Your task to perform on an android device: open app "Life360: Find Family & Friends" (install if not already installed) and enter user name: "gusts@gmail.com" and password: "assurers" Image 0: 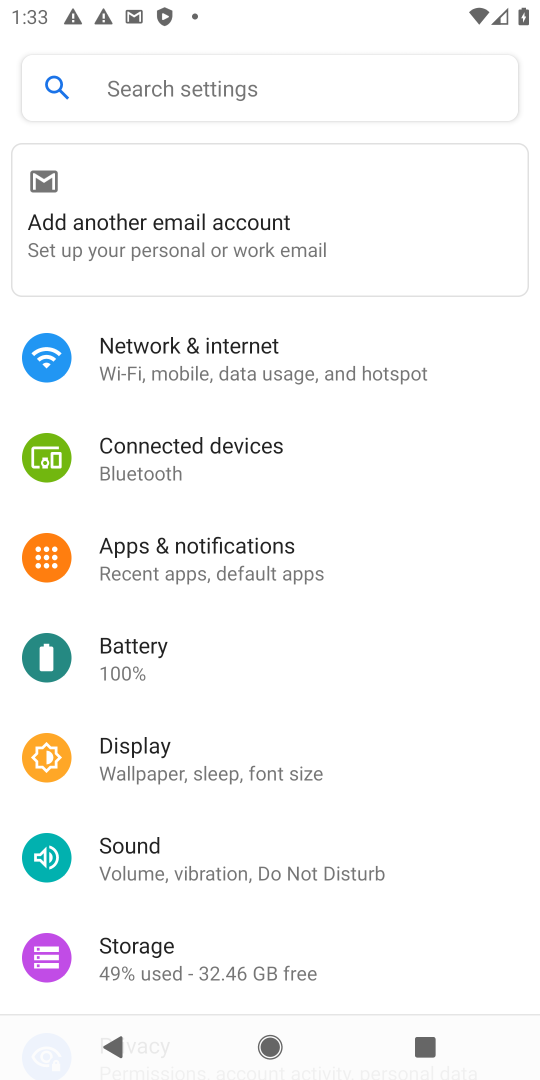
Step 0: press home button
Your task to perform on an android device: open app "Life360: Find Family & Friends" (install if not already installed) and enter user name: "gusts@gmail.com" and password: "assurers" Image 1: 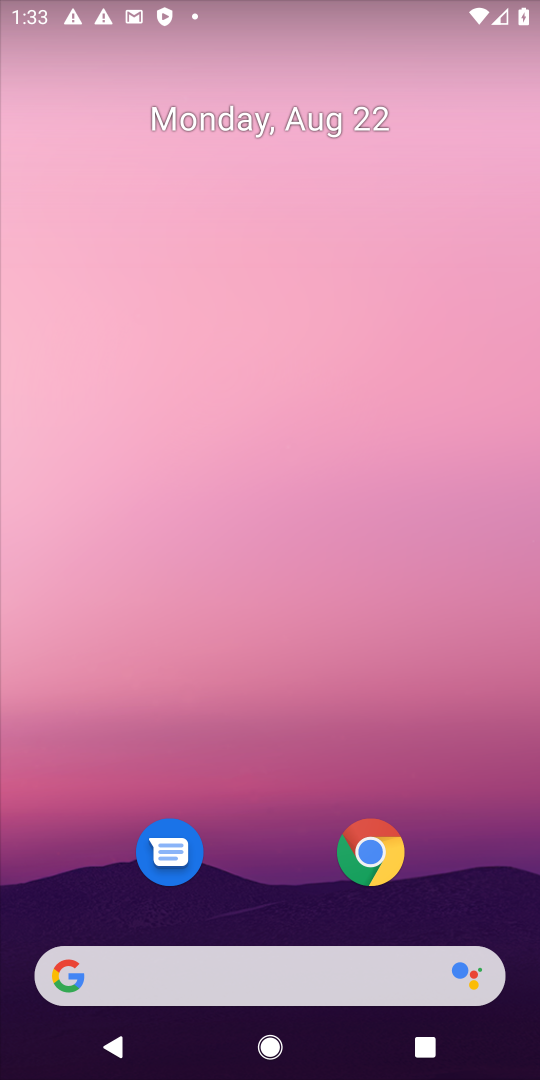
Step 1: drag from (276, 968) to (205, 41)
Your task to perform on an android device: open app "Life360: Find Family & Friends" (install if not already installed) and enter user name: "gusts@gmail.com" and password: "assurers" Image 2: 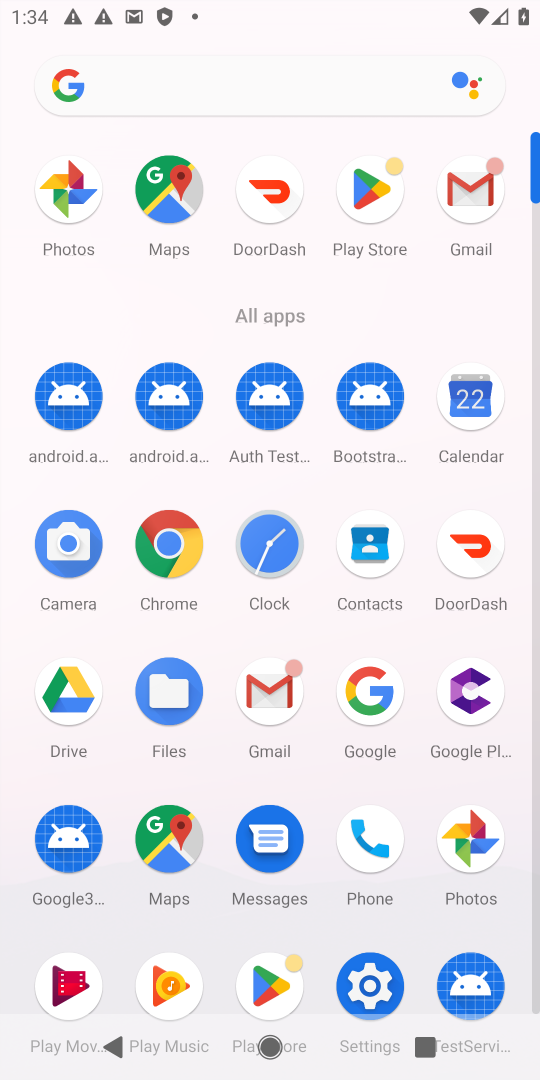
Step 2: click (361, 203)
Your task to perform on an android device: open app "Life360: Find Family & Friends" (install if not already installed) and enter user name: "gusts@gmail.com" and password: "assurers" Image 3: 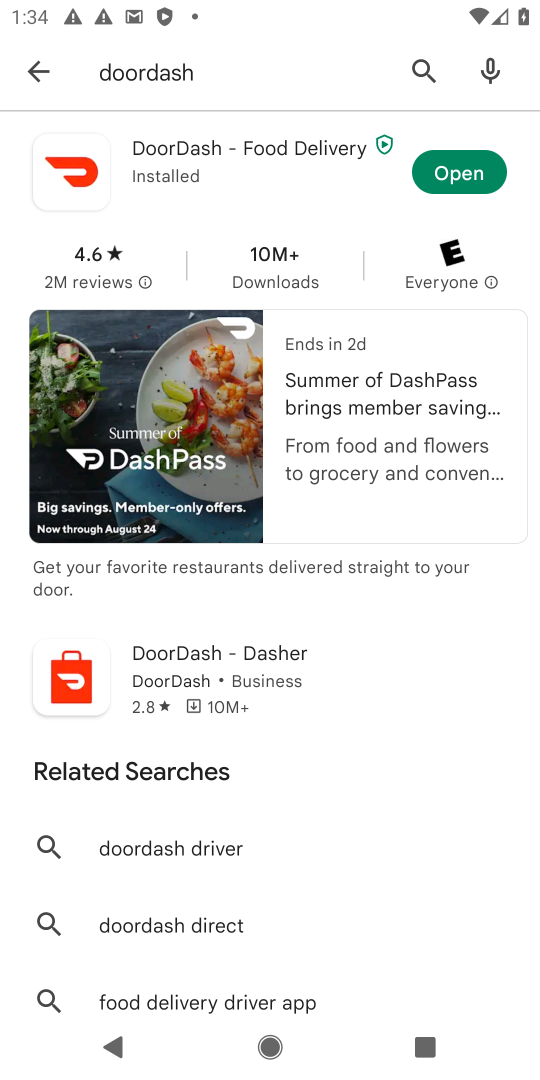
Step 3: click (416, 74)
Your task to perform on an android device: open app "Life360: Find Family & Friends" (install if not already installed) and enter user name: "gusts@gmail.com" and password: "assurers" Image 4: 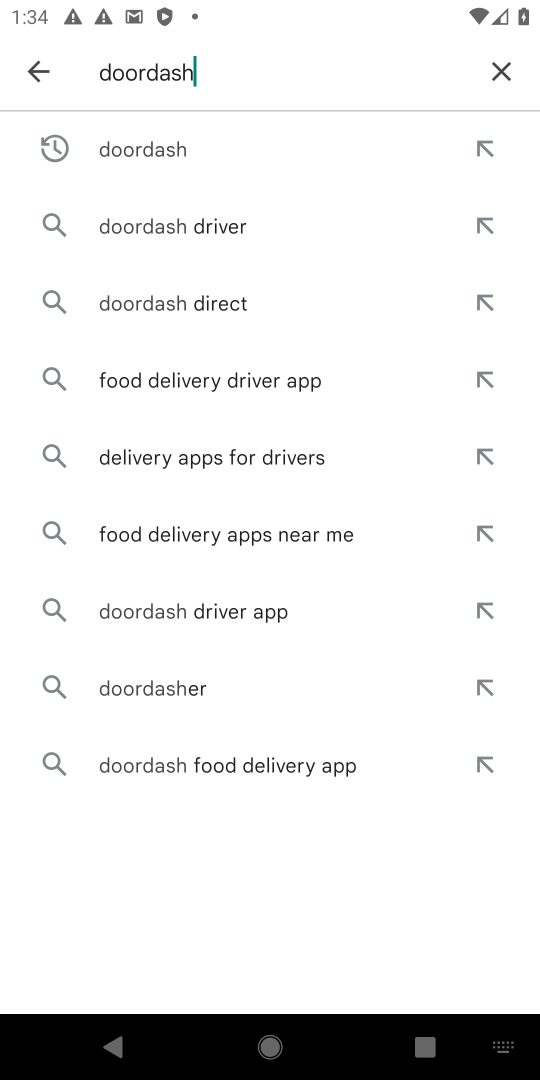
Step 4: click (491, 71)
Your task to perform on an android device: open app "Life360: Find Family & Friends" (install if not already installed) and enter user name: "gusts@gmail.com" and password: "assurers" Image 5: 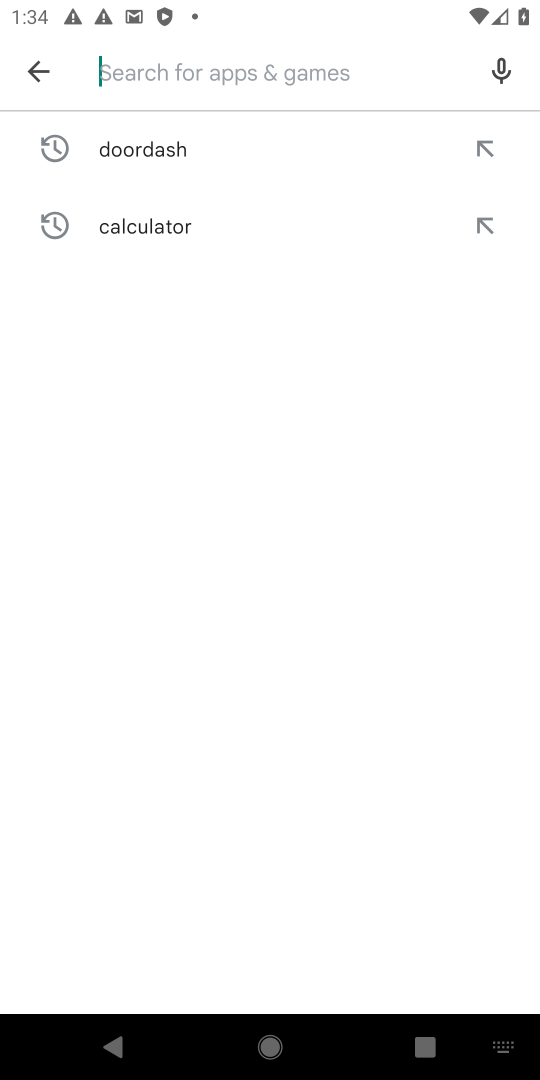
Step 5: type "life360"
Your task to perform on an android device: open app "Life360: Find Family & Friends" (install if not already installed) and enter user name: "gusts@gmail.com" and password: "assurers" Image 6: 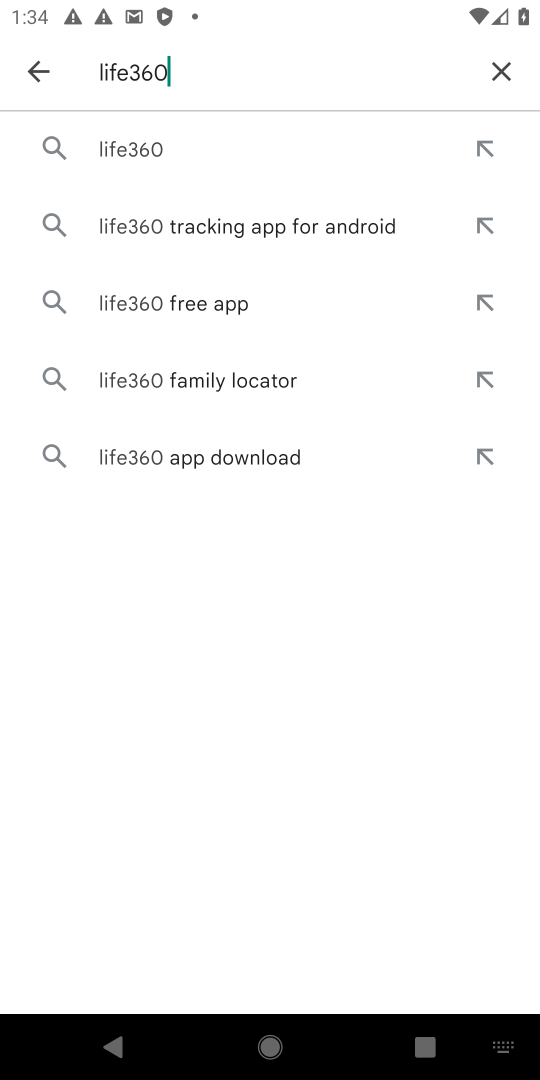
Step 6: click (484, 315)
Your task to perform on an android device: open app "Life360: Find Family & Friends" (install if not already installed) and enter user name: "gusts@gmail.com" and password: "assurers" Image 7: 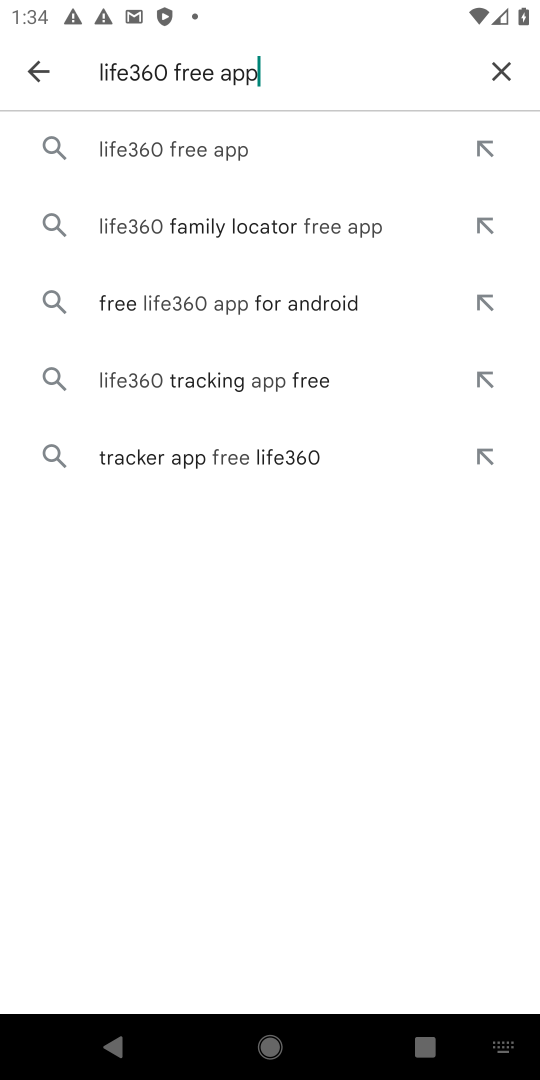
Step 7: click (144, 135)
Your task to perform on an android device: open app "Life360: Find Family & Friends" (install if not already installed) and enter user name: "gusts@gmail.com" and password: "assurers" Image 8: 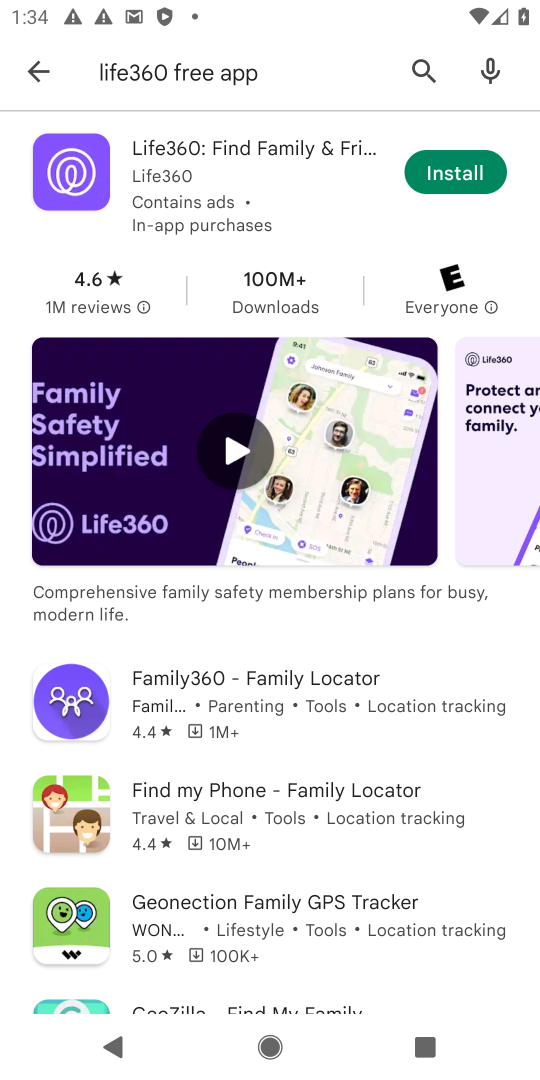
Step 8: click (476, 162)
Your task to perform on an android device: open app "Life360: Find Family & Friends" (install if not already installed) and enter user name: "gusts@gmail.com" and password: "assurers" Image 9: 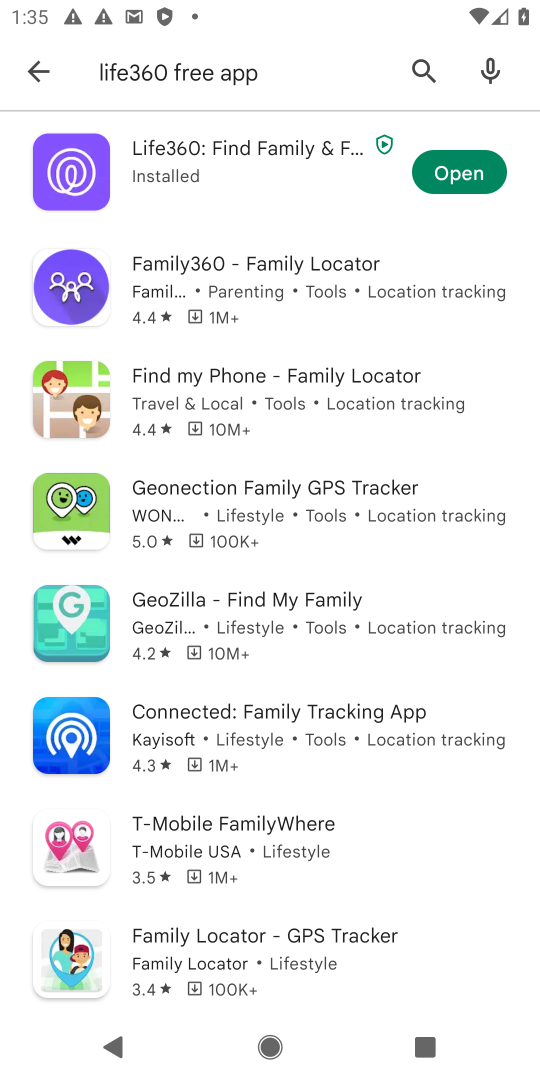
Step 9: click (458, 187)
Your task to perform on an android device: open app "Life360: Find Family & Friends" (install if not already installed) and enter user name: "gusts@gmail.com" and password: "assurers" Image 10: 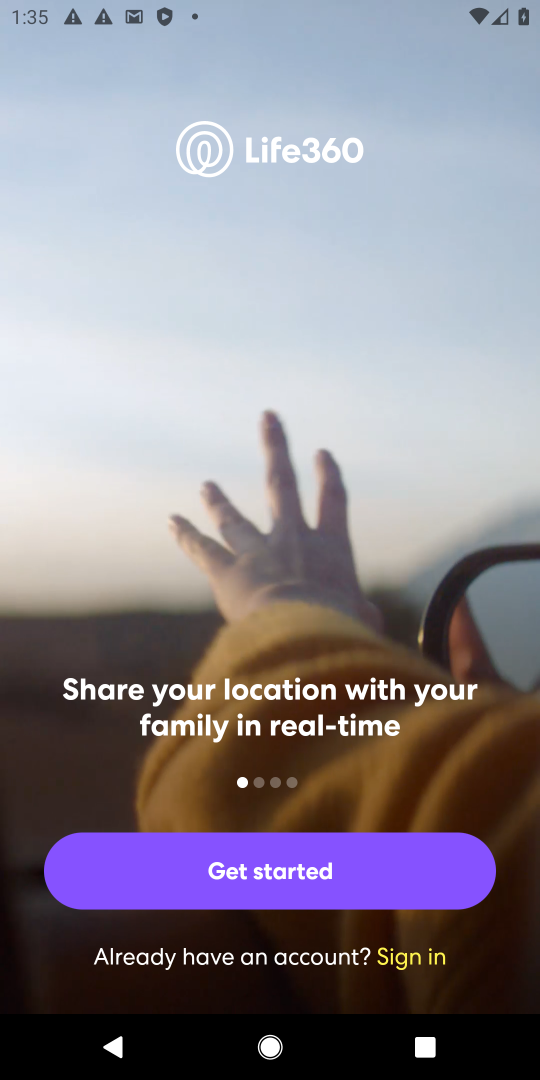
Step 10: click (413, 966)
Your task to perform on an android device: open app "Life360: Find Family & Friends" (install if not already installed) and enter user name: "gusts@gmail.com" and password: "assurers" Image 11: 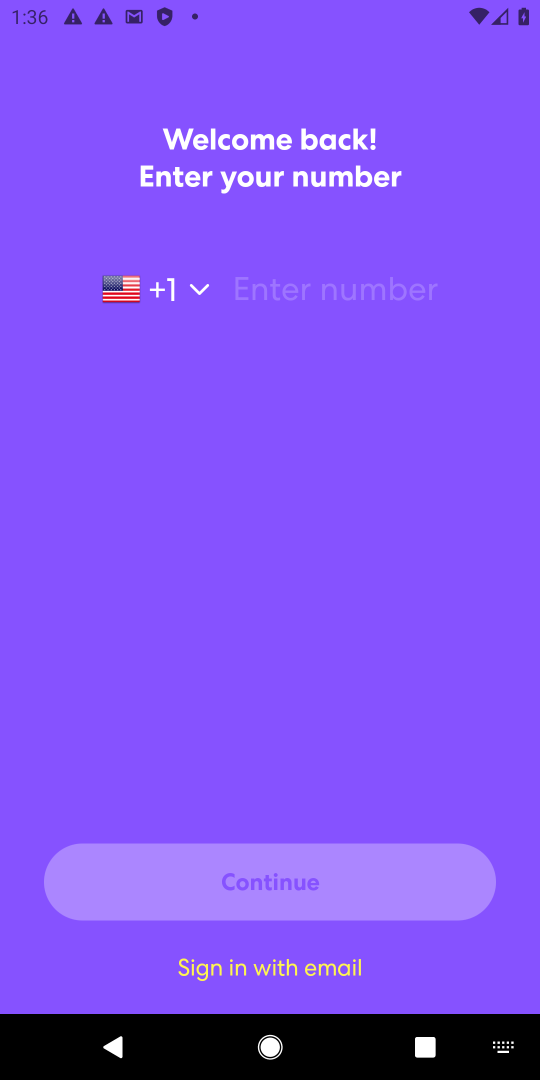
Step 11: click (317, 981)
Your task to perform on an android device: open app "Life360: Find Family & Friends" (install if not already installed) and enter user name: "gusts@gmail.com" and password: "assurers" Image 12: 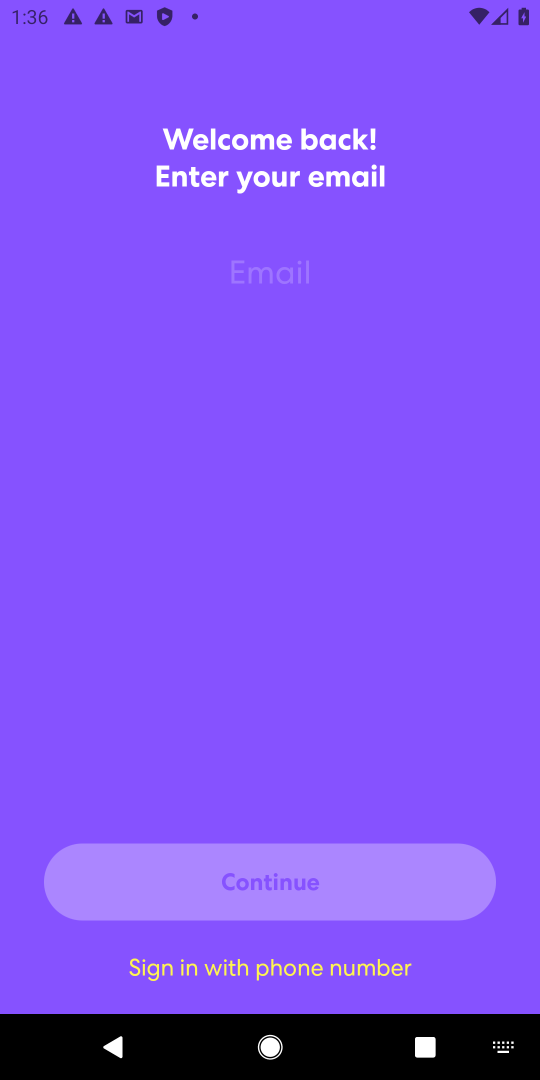
Step 12: type "gusts@gmail.com"
Your task to perform on an android device: open app "Life360: Find Family & Friends" (install if not already installed) and enter user name: "gusts@gmail.com" and password: "assurers" Image 13: 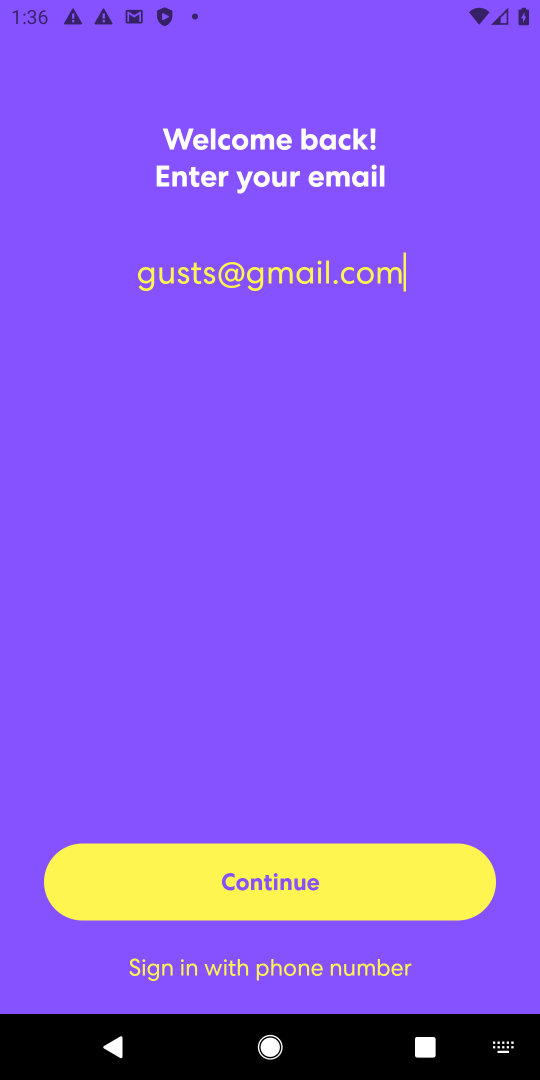
Step 13: click (285, 885)
Your task to perform on an android device: open app "Life360: Find Family & Friends" (install if not already installed) and enter user name: "gusts@gmail.com" and password: "assurers" Image 14: 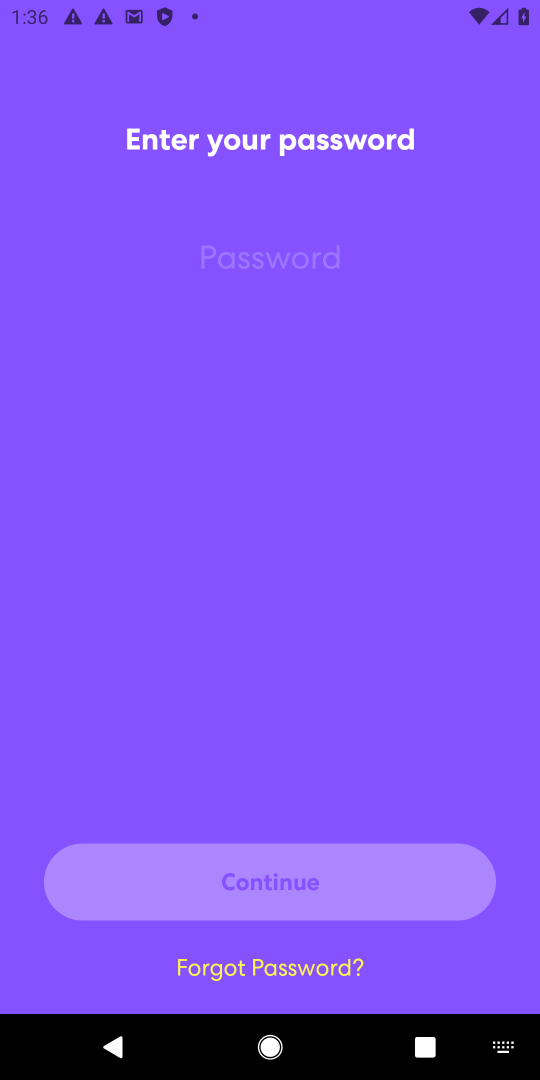
Step 14: type "assurers"
Your task to perform on an android device: open app "Life360: Find Family & Friends" (install if not already installed) and enter user name: "gusts@gmail.com" and password: "assurers" Image 15: 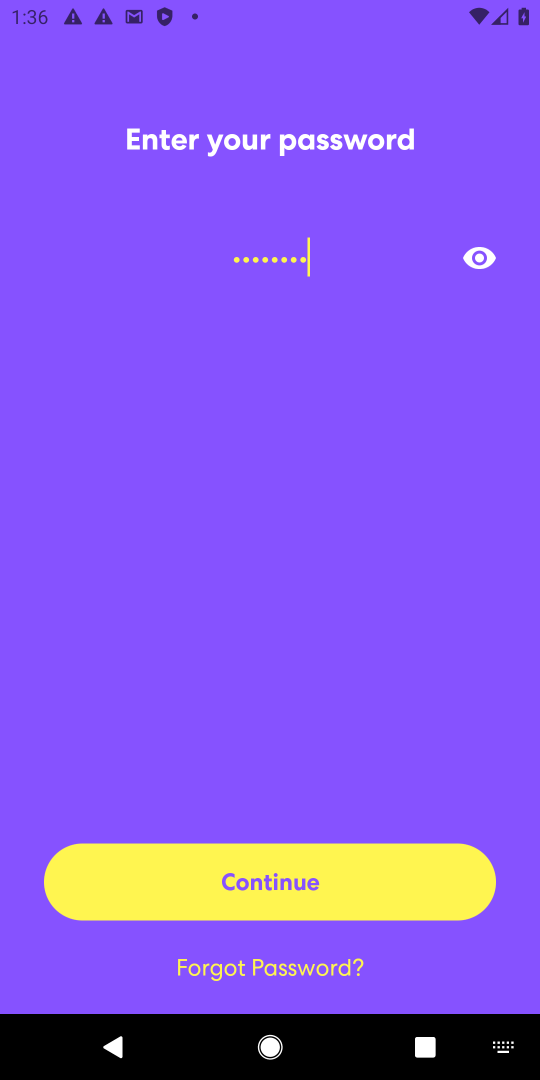
Step 15: click (345, 877)
Your task to perform on an android device: open app "Life360: Find Family & Friends" (install if not already installed) and enter user name: "gusts@gmail.com" and password: "assurers" Image 16: 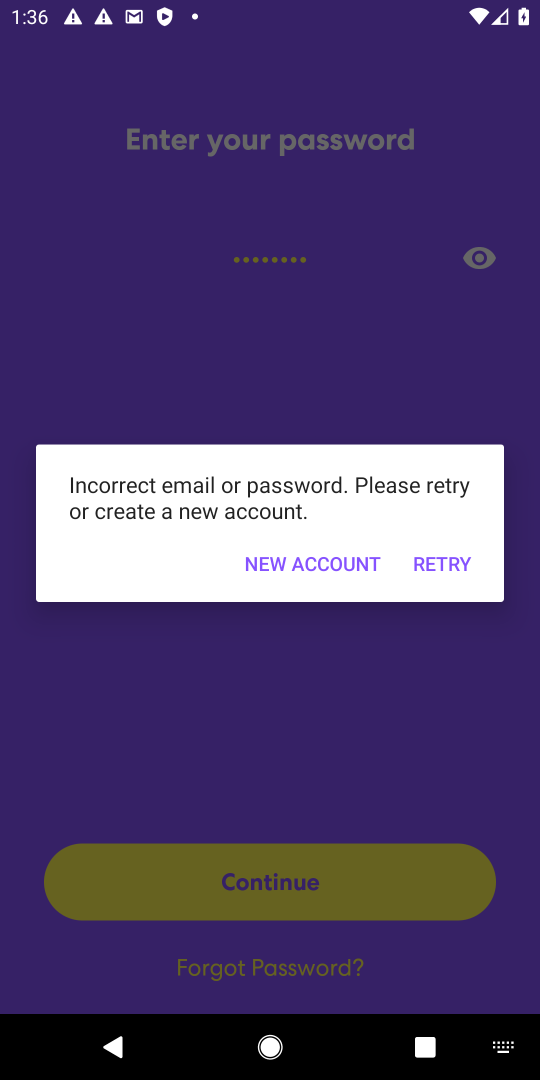
Step 16: task complete